Your task to perform on an android device: change your default location settings in chrome Image 0: 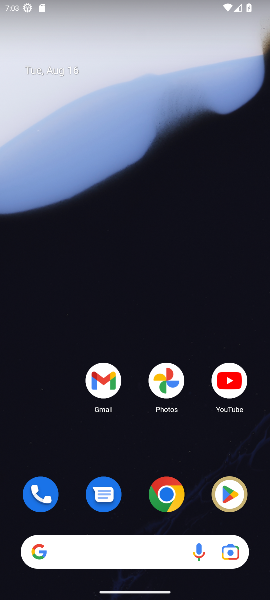
Step 0: drag from (53, 413) to (124, 135)
Your task to perform on an android device: change your default location settings in chrome Image 1: 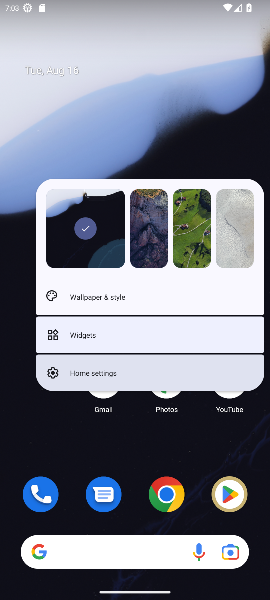
Step 1: click (70, 147)
Your task to perform on an android device: change your default location settings in chrome Image 2: 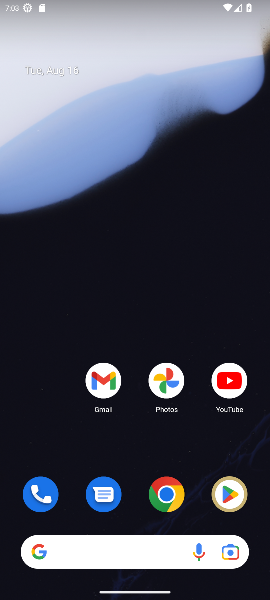
Step 2: task complete